Your task to perform on an android device: open a new tab in the chrome app Image 0: 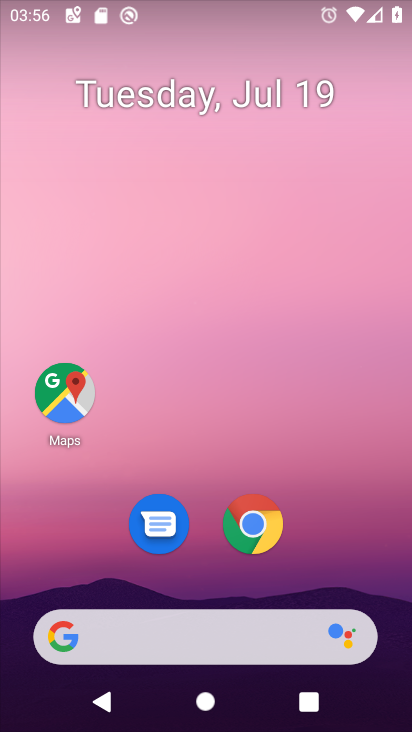
Step 0: click (251, 526)
Your task to perform on an android device: open a new tab in the chrome app Image 1: 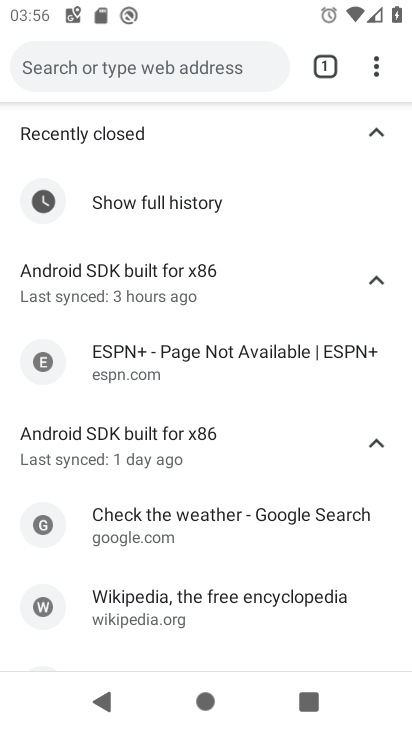
Step 1: click (375, 69)
Your task to perform on an android device: open a new tab in the chrome app Image 2: 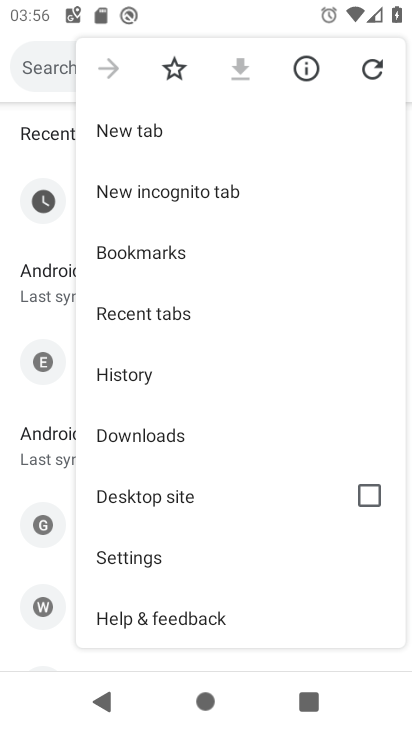
Step 2: click (268, 137)
Your task to perform on an android device: open a new tab in the chrome app Image 3: 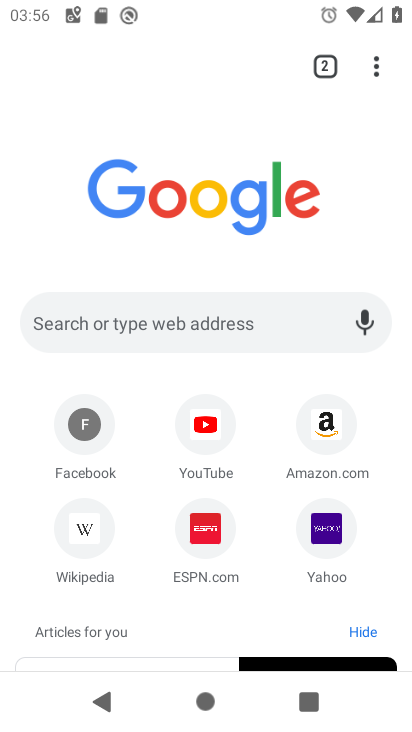
Step 3: task complete